Your task to perform on an android device: see sites visited before in the chrome app Image 0: 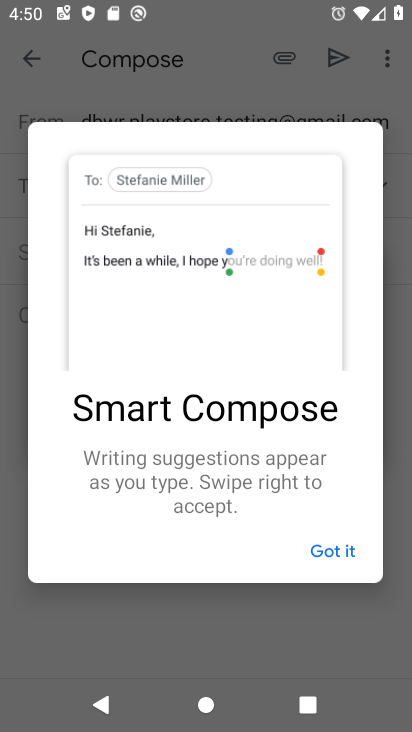
Step 0: press home button
Your task to perform on an android device: see sites visited before in the chrome app Image 1: 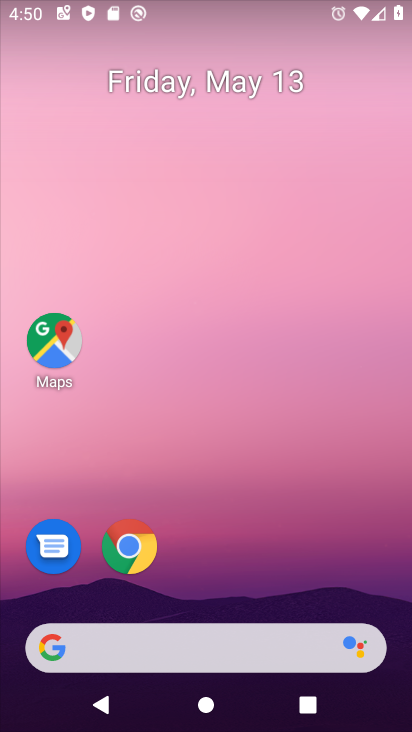
Step 1: click (135, 550)
Your task to perform on an android device: see sites visited before in the chrome app Image 2: 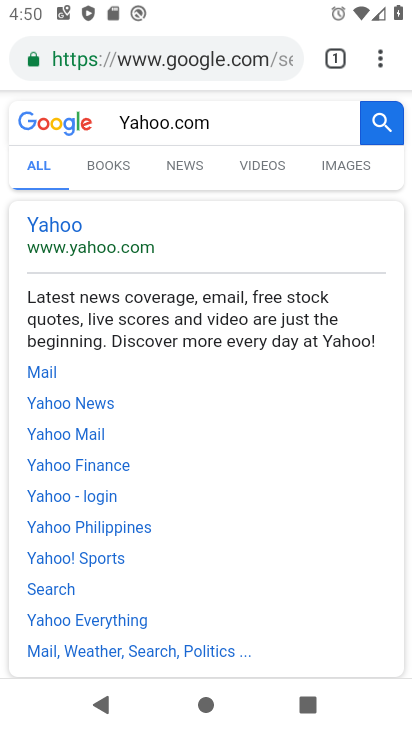
Step 2: click (381, 62)
Your task to perform on an android device: see sites visited before in the chrome app Image 3: 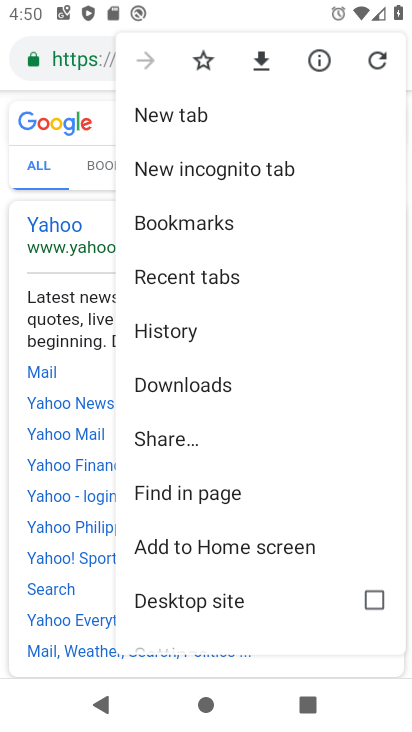
Step 3: click (167, 341)
Your task to perform on an android device: see sites visited before in the chrome app Image 4: 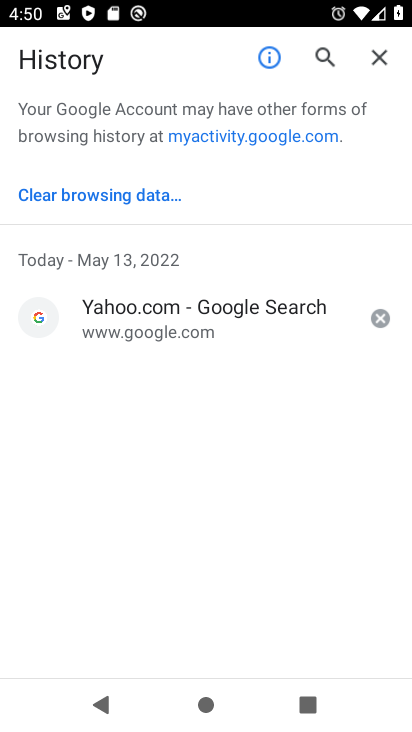
Step 4: task complete